Your task to perform on an android device: Open sound settings Image 0: 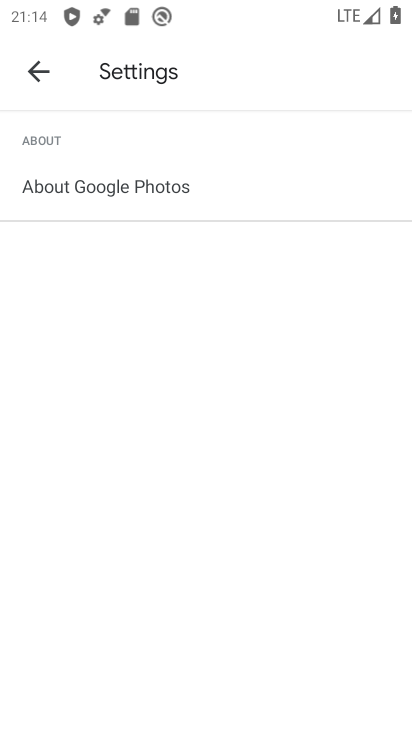
Step 0: press home button
Your task to perform on an android device: Open sound settings Image 1: 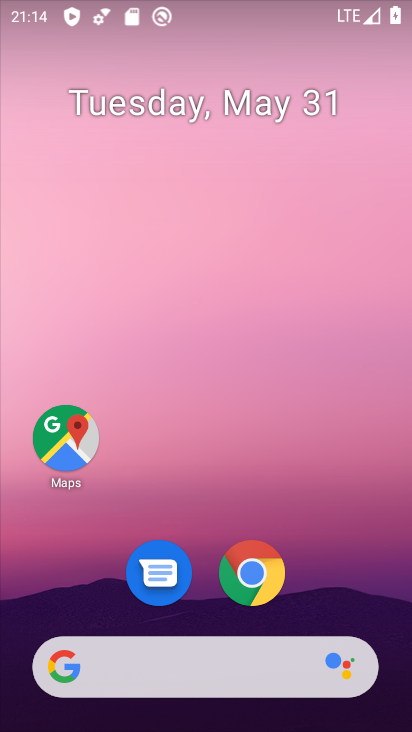
Step 1: drag from (331, 537) to (285, 37)
Your task to perform on an android device: Open sound settings Image 2: 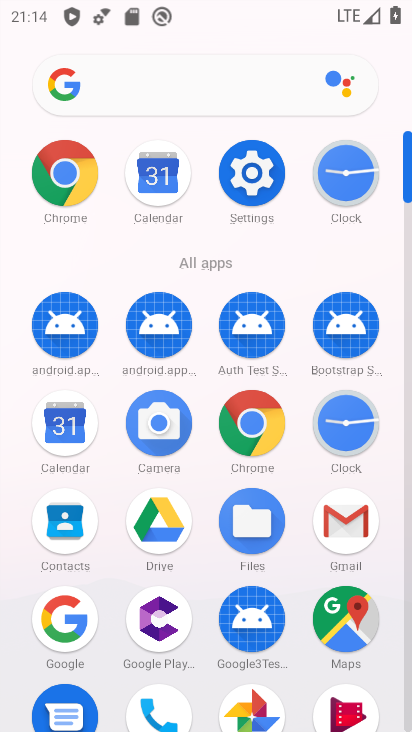
Step 2: click (242, 159)
Your task to perform on an android device: Open sound settings Image 3: 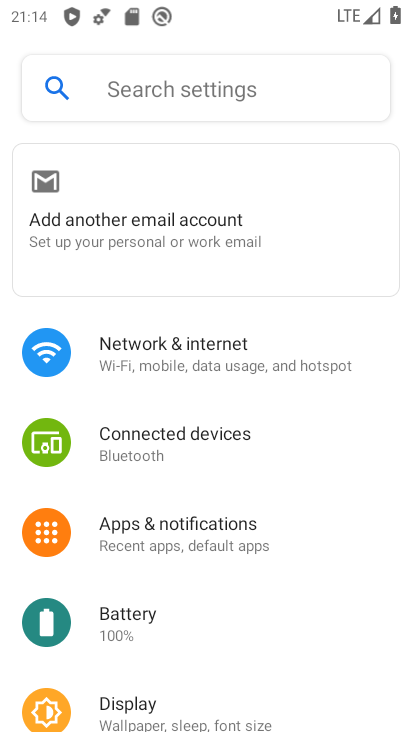
Step 3: drag from (190, 510) to (282, 45)
Your task to perform on an android device: Open sound settings Image 4: 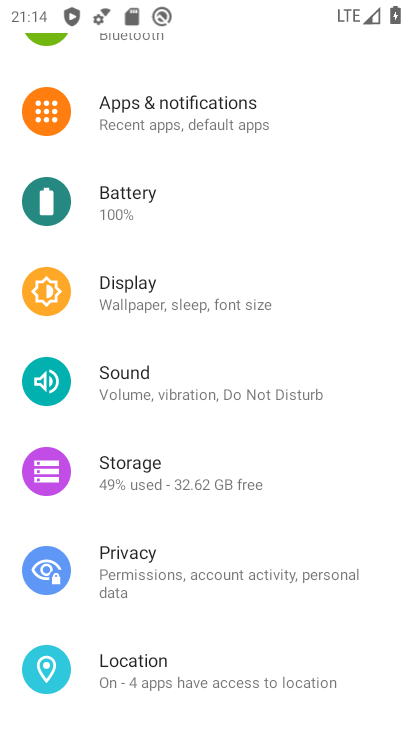
Step 4: click (144, 379)
Your task to perform on an android device: Open sound settings Image 5: 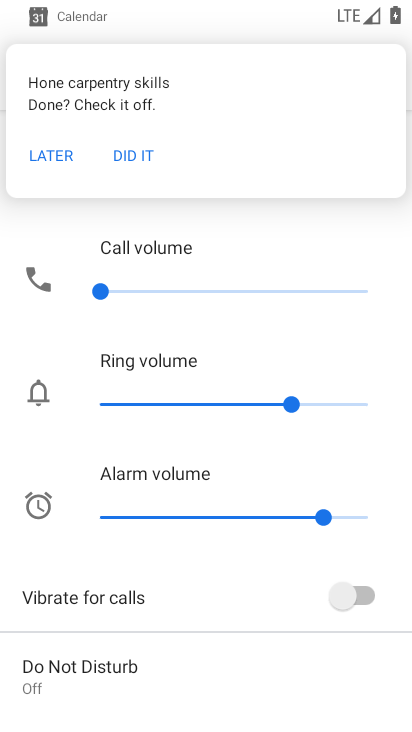
Step 5: task complete